Your task to perform on an android device: open a bookmark in the chrome app Image 0: 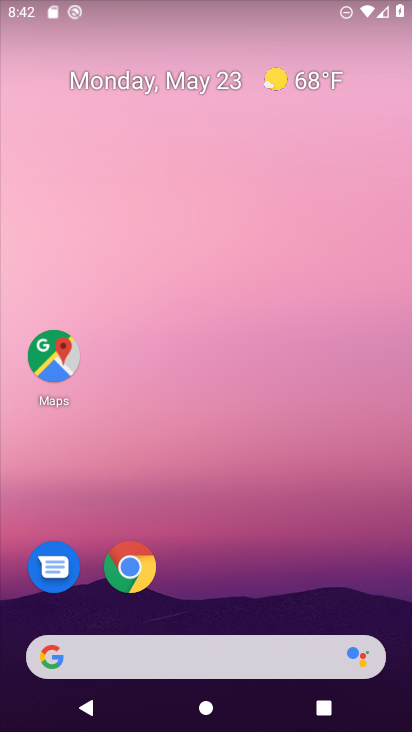
Step 0: drag from (187, 617) to (209, 34)
Your task to perform on an android device: open a bookmark in the chrome app Image 1: 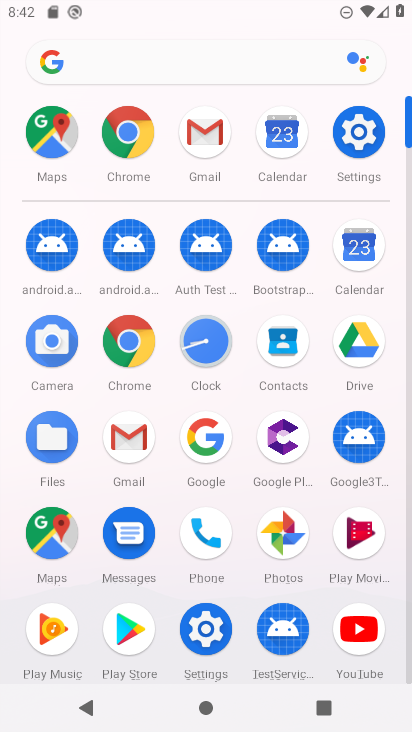
Step 1: click (128, 341)
Your task to perform on an android device: open a bookmark in the chrome app Image 2: 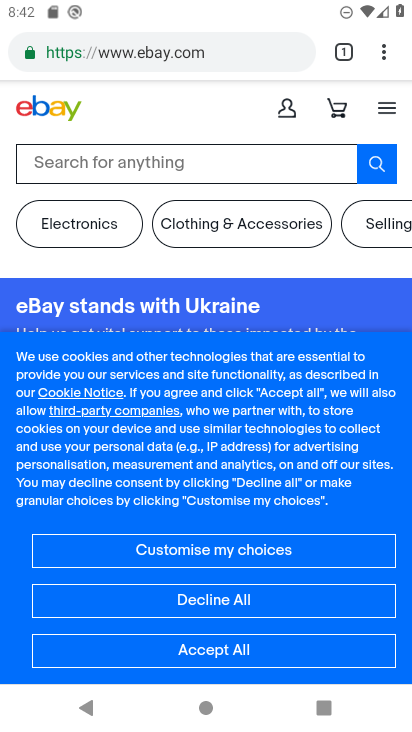
Step 2: drag from (281, 525) to (360, 139)
Your task to perform on an android device: open a bookmark in the chrome app Image 3: 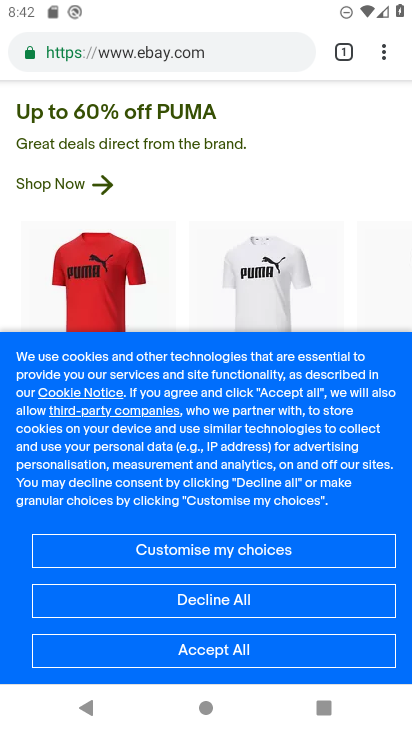
Step 3: drag from (264, 129) to (340, 715)
Your task to perform on an android device: open a bookmark in the chrome app Image 4: 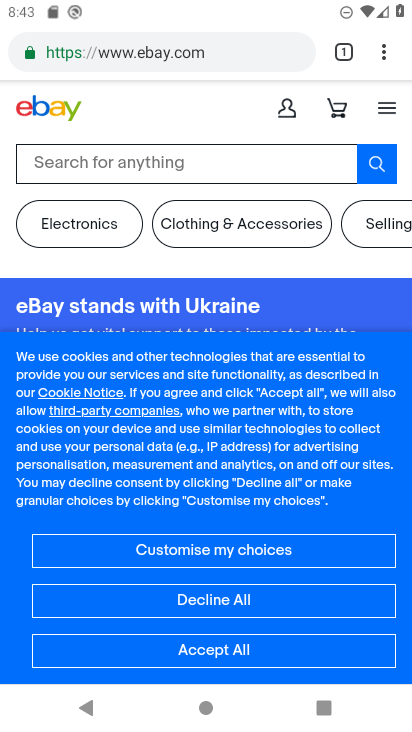
Step 4: drag from (244, 439) to (304, 174)
Your task to perform on an android device: open a bookmark in the chrome app Image 5: 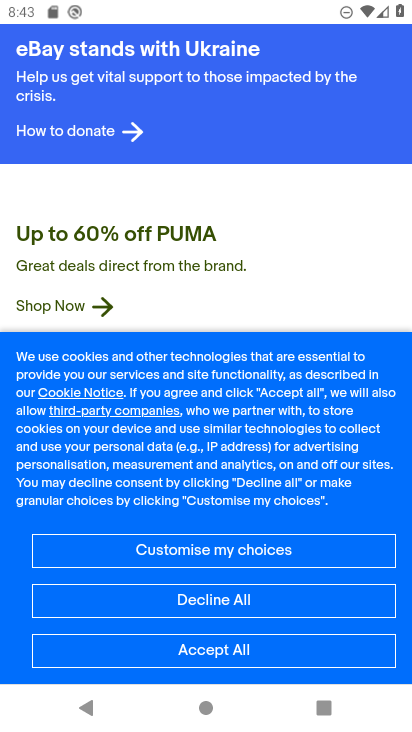
Step 5: drag from (300, 144) to (289, 643)
Your task to perform on an android device: open a bookmark in the chrome app Image 6: 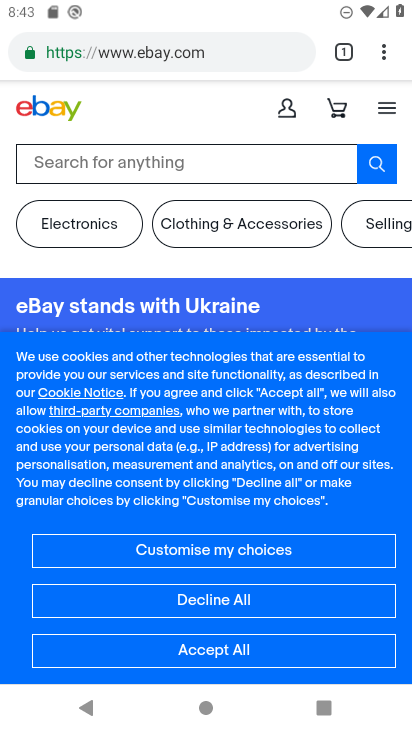
Step 6: drag from (241, 407) to (302, 98)
Your task to perform on an android device: open a bookmark in the chrome app Image 7: 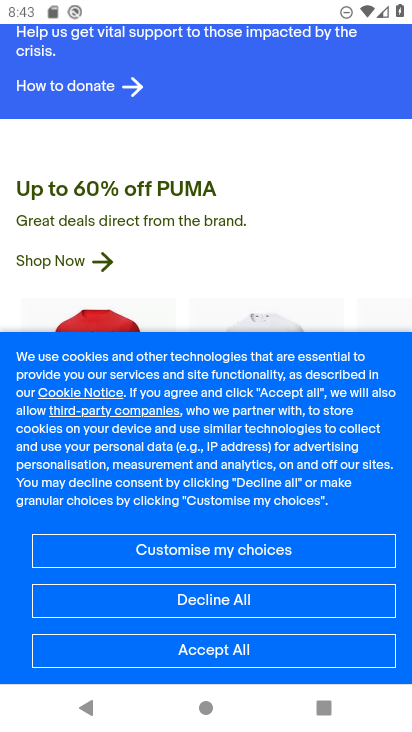
Step 7: drag from (332, 122) to (304, 611)
Your task to perform on an android device: open a bookmark in the chrome app Image 8: 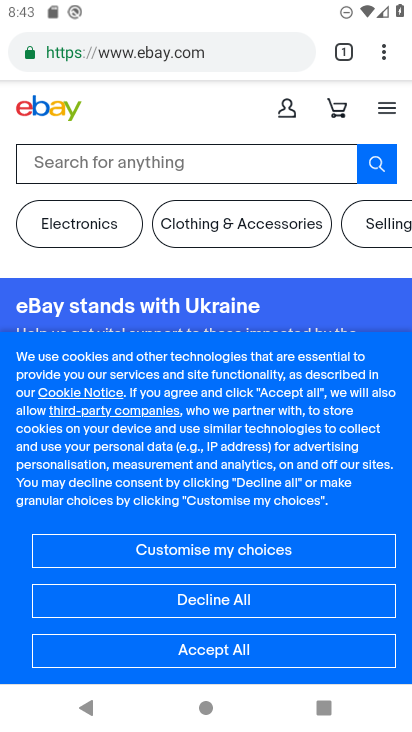
Step 8: click (385, 60)
Your task to perform on an android device: open a bookmark in the chrome app Image 9: 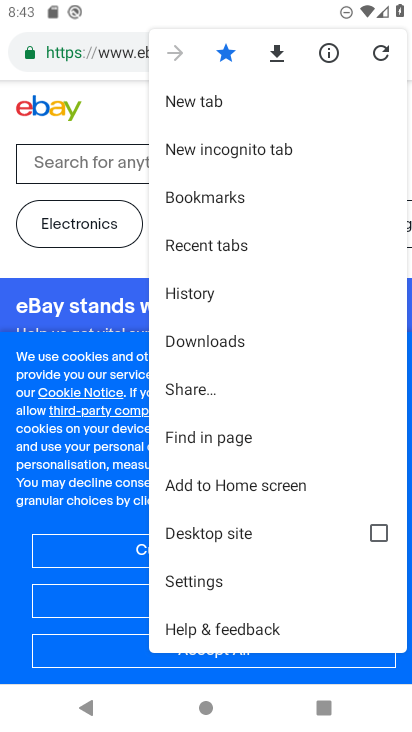
Step 9: click (231, 201)
Your task to perform on an android device: open a bookmark in the chrome app Image 10: 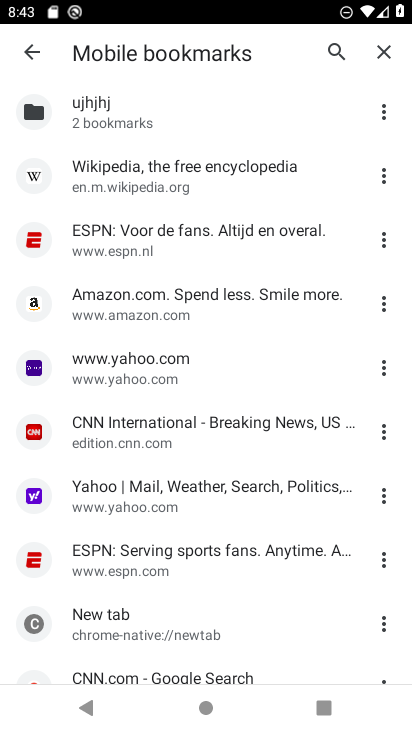
Step 10: task complete